Your task to perform on an android device: turn on improve location accuracy Image 0: 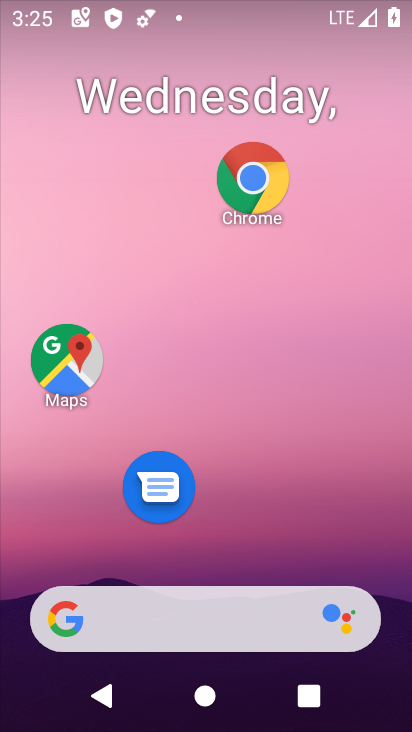
Step 0: drag from (246, 552) to (225, 91)
Your task to perform on an android device: turn on improve location accuracy Image 1: 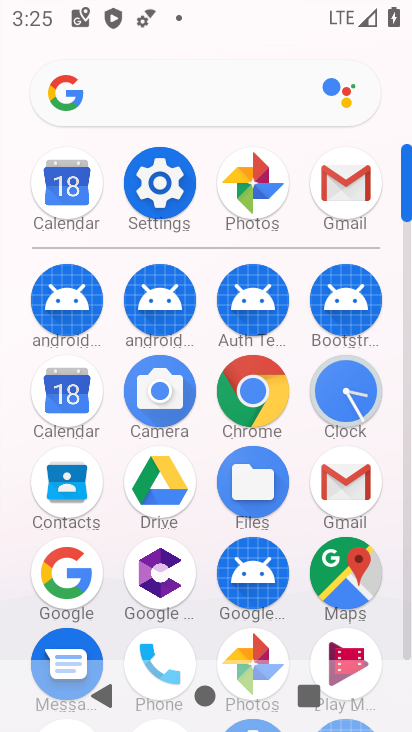
Step 1: click (158, 194)
Your task to perform on an android device: turn on improve location accuracy Image 2: 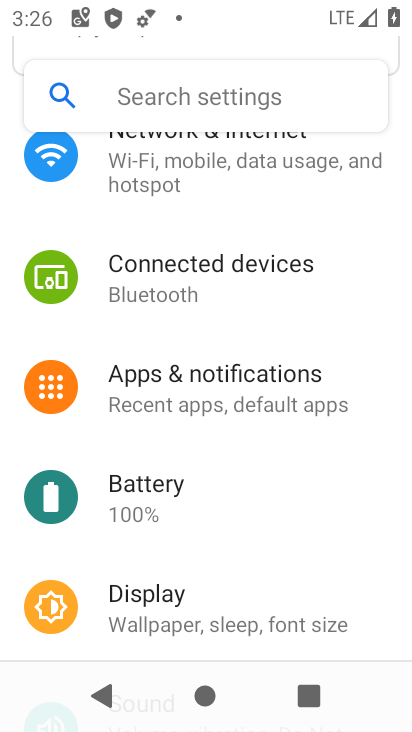
Step 2: drag from (188, 572) to (263, 238)
Your task to perform on an android device: turn on improve location accuracy Image 3: 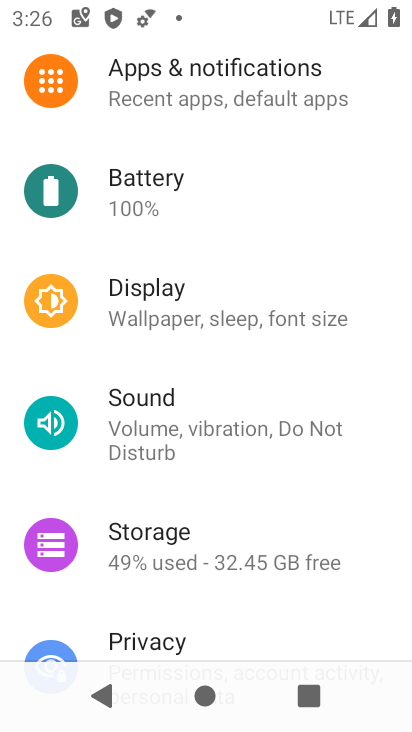
Step 3: drag from (141, 544) to (214, 256)
Your task to perform on an android device: turn on improve location accuracy Image 4: 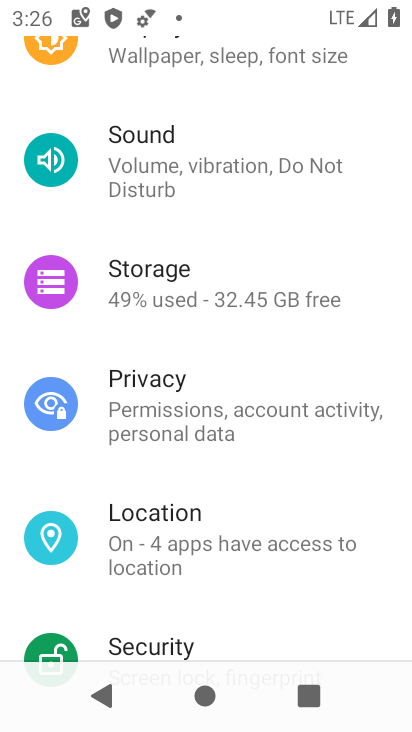
Step 4: click (201, 558)
Your task to perform on an android device: turn on improve location accuracy Image 5: 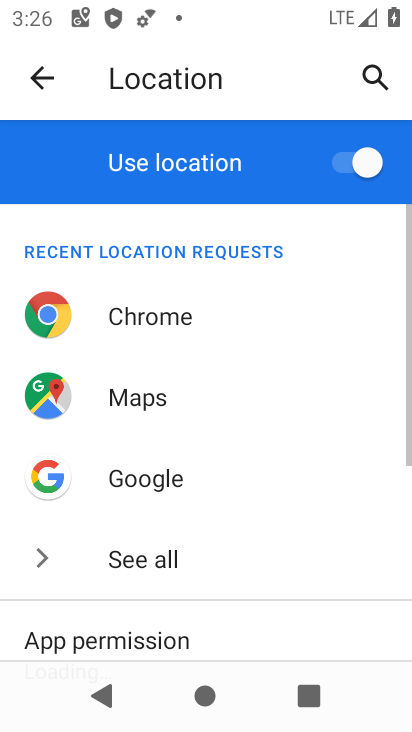
Step 5: drag from (221, 634) to (221, 307)
Your task to perform on an android device: turn on improve location accuracy Image 6: 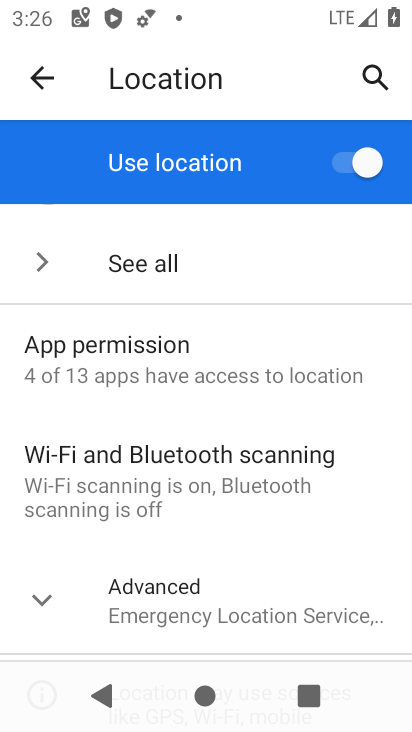
Step 6: click (177, 599)
Your task to perform on an android device: turn on improve location accuracy Image 7: 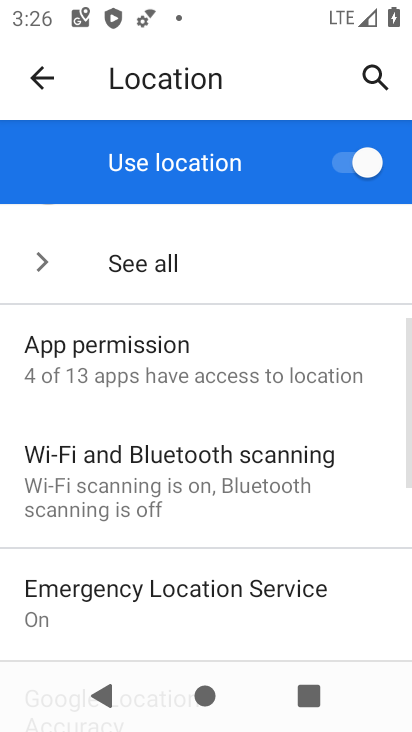
Step 7: drag from (249, 419) to (292, 154)
Your task to perform on an android device: turn on improve location accuracy Image 8: 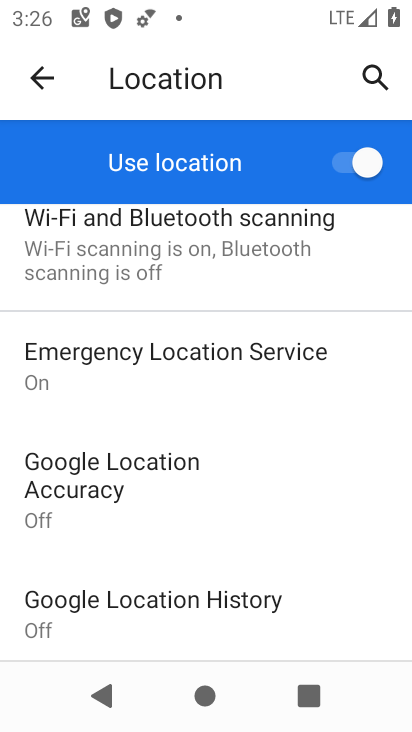
Step 8: click (123, 496)
Your task to perform on an android device: turn on improve location accuracy Image 9: 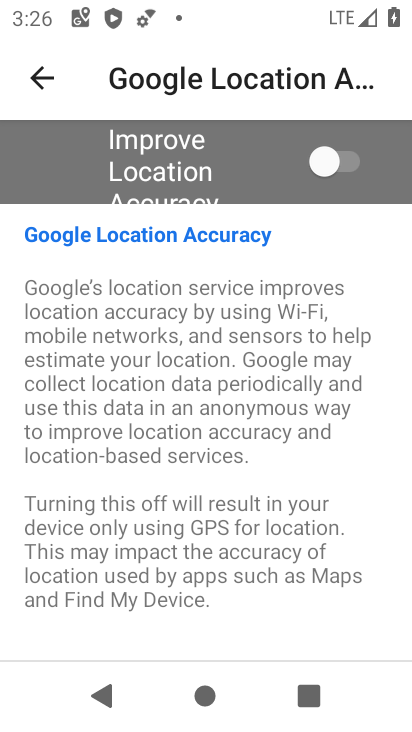
Step 9: click (341, 163)
Your task to perform on an android device: turn on improve location accuracy Image 10: 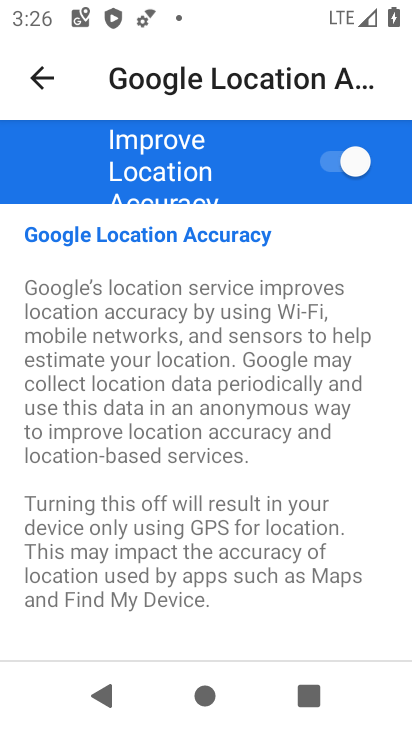
Step 10: task complete